Your task to perform on an android device: Add logitech g502 to the cart on newegg Image 0: 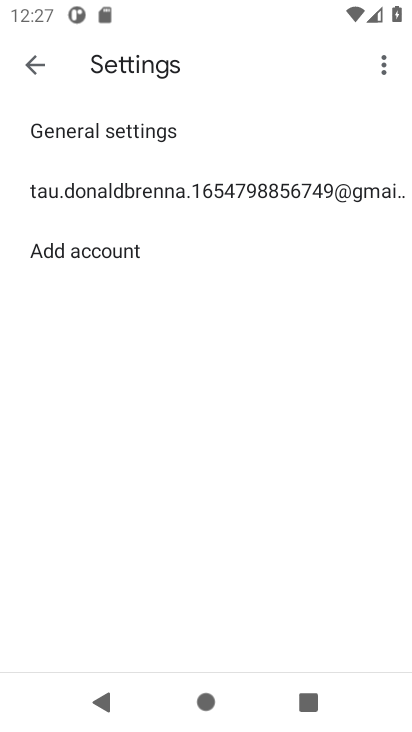
Step 0: press home button
Your task to perform on an android device: Add logitech g502 to the cart on newegg Image 1: 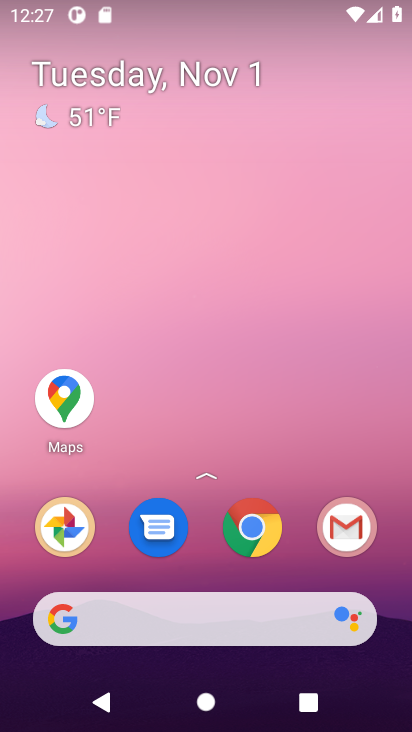
Step 1: click (253, 532)
Your task to perform on an android device: Add logitech g502 to the cart on newegg Image 2: 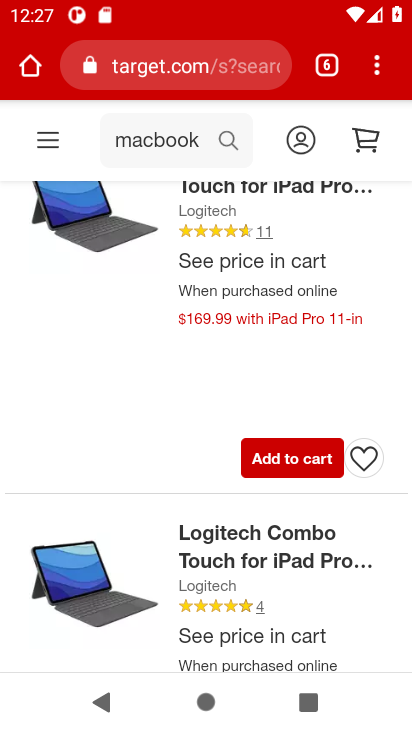
Step 2: click (211, 43)
Your task to perform on an android device: Add logitech g502 to the cart on newegg Image 3: 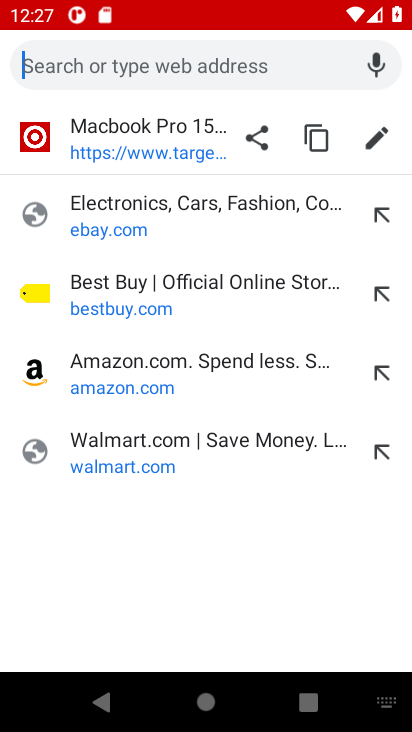
Step 3: type "newegg"
Your task to perform on an android device: Add logitech g502 to the cart on newegg Image 4: 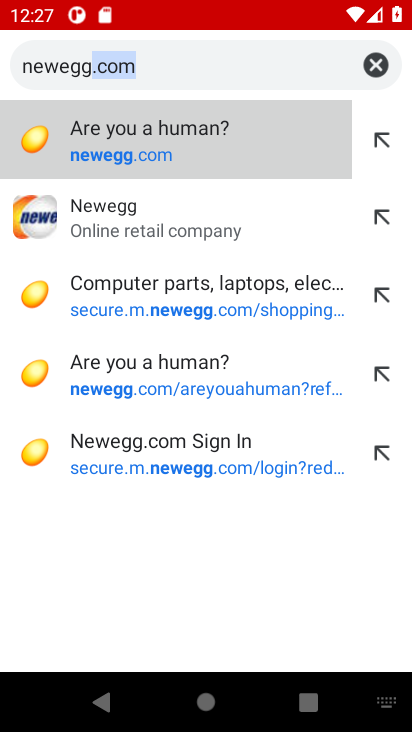
Step 4: click (95, 211)
Your task to perform on an android device: Add logitech g502 to the cart on newegg Image 5: 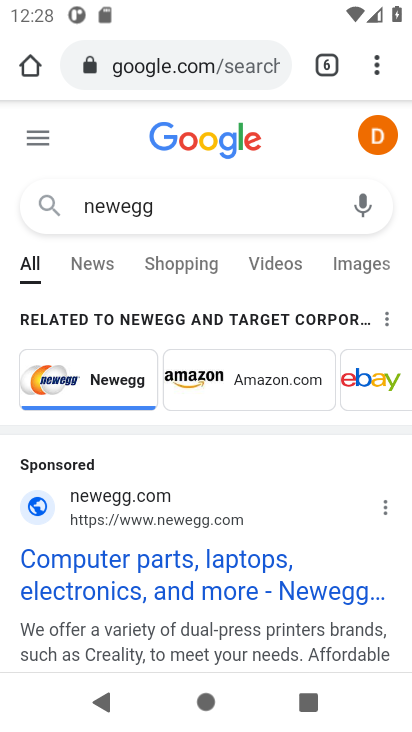
Step 5: click (146, 564)
Your task to perform on an android device: Add logitech g502 to the cart on newegg Image 6: 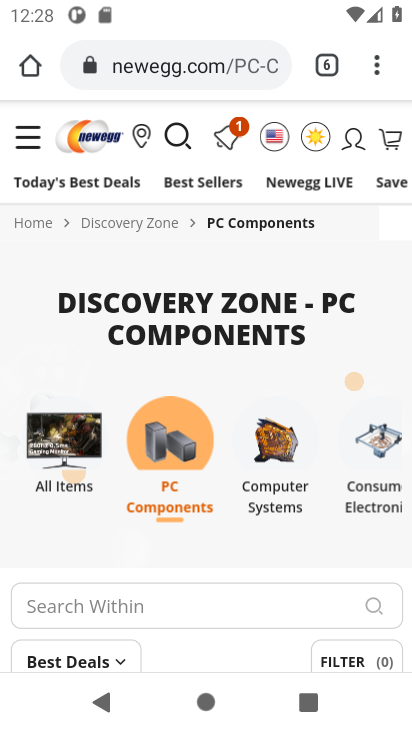
Step 6: click (173, 135)
Your task to perform on an android device: Add logitech g502 to the cart on newegg Image 7: 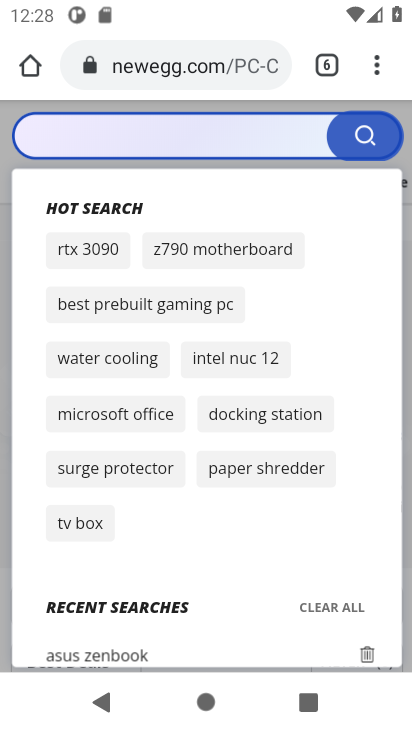
Step 7: click (114, 128)
Your task to perform on an android device: Add logitech g502 to the cart on newegg Image 8: 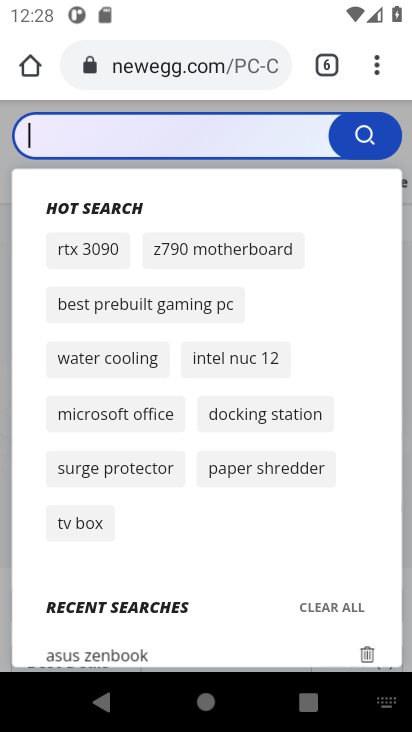
Step 8: type "logitech g502"
Your task to perform on an android device: Add logitech g502 to the cart on newegg Image 9: 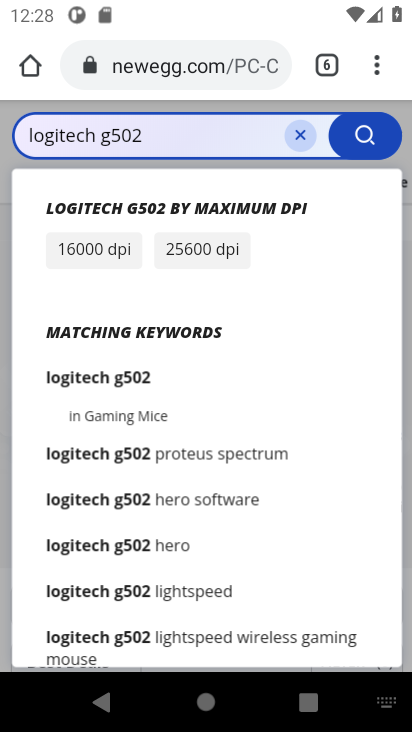
Step 9: click (75, 379)
Your task to perform on an android device: Add logitech g502 to the cart on newegg Image 10: 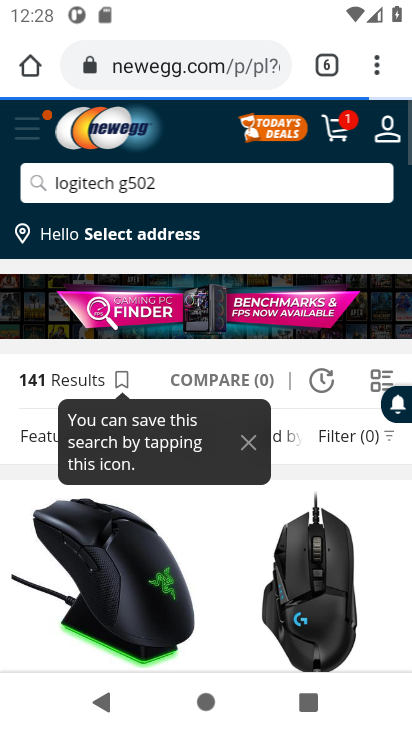
Step 10: drag from (196, 651) to (194, 216)
Your task to perform on an android device: Add logitech g502 to the cart on newegg Image 11: 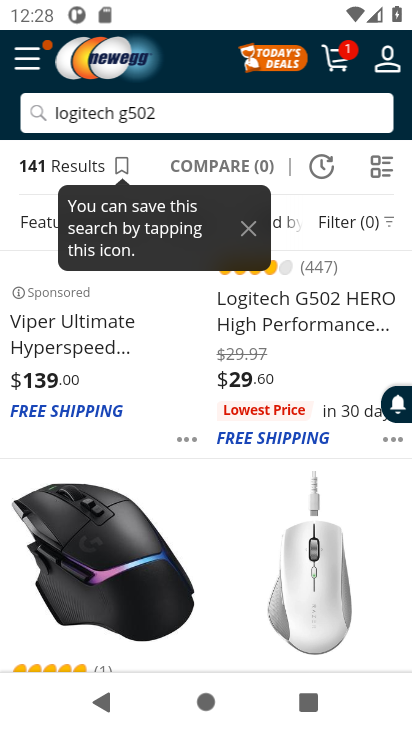
Step 11: drag from (188, 351) to (191, 525)
Your task to perform on an android device: Add logitech g502 to the cart on newegg Image 12: 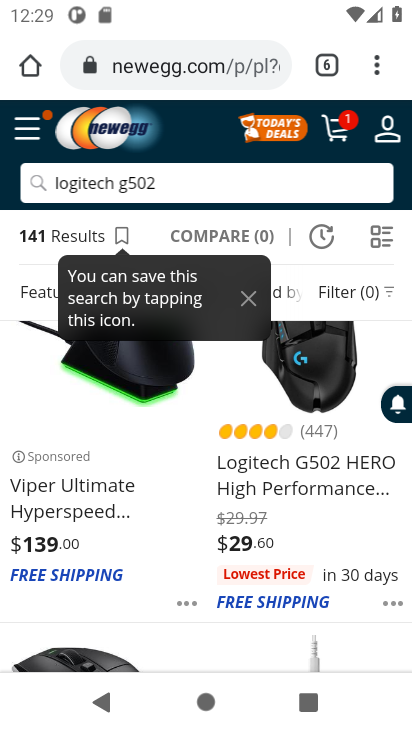
Step 12: click (319, 457)
Your task to perform on an android device: Add logitech g502 to the cart on newegg Image 13: 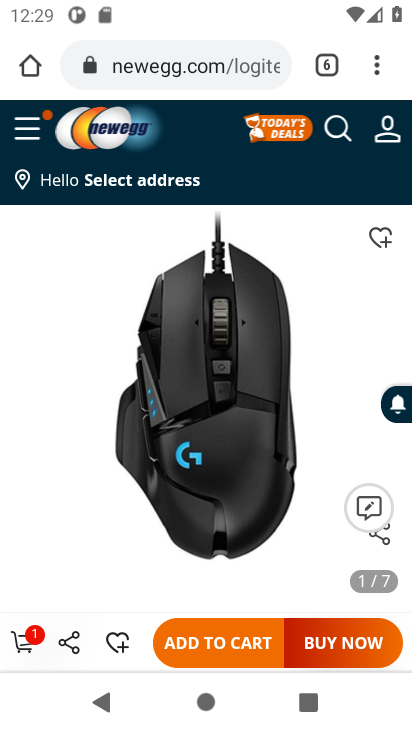
Step 13: drag from (269, 574) to (248, 353)
Your task to perform on an android device: Add logitech g502 to the cart on newegg Image 14: 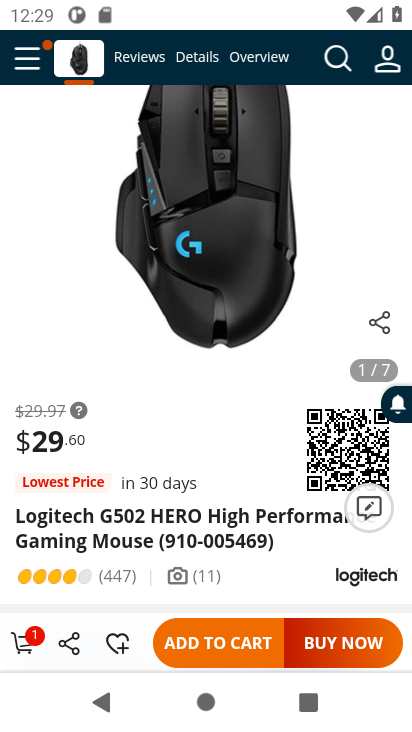
Step 14: click (208, 640)
Your task to perform on an android device: Add logitech g502 to the cart on newegg Image 15: 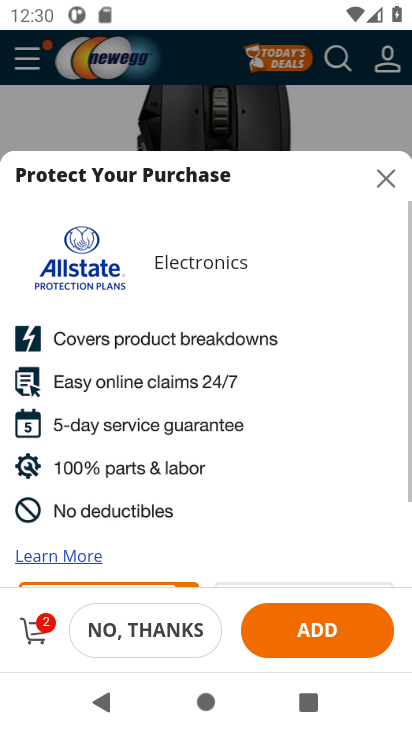
Step 15: click (120, 633)
Your task to perform on an android device: Add logitech g502 to the cart on newegg Image 16: 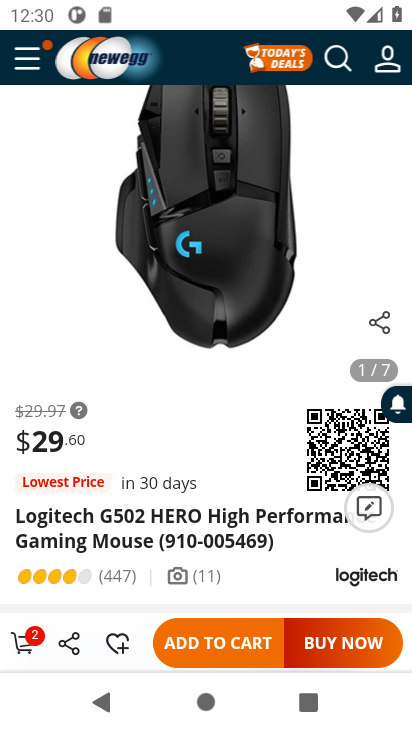
Step 16: click (30, 641)
Your task to perform on an android device: Add logitech g502 to the cart on newegg Image 17: 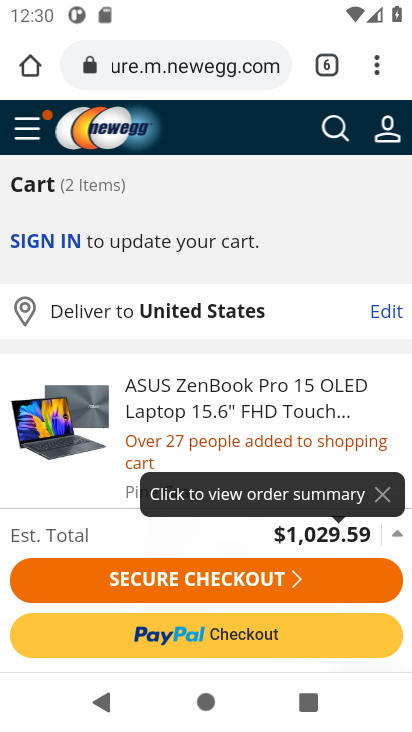
Step 17: task complete